Your task to perform on an android device: turn on javascript in the chrome app Image 0: 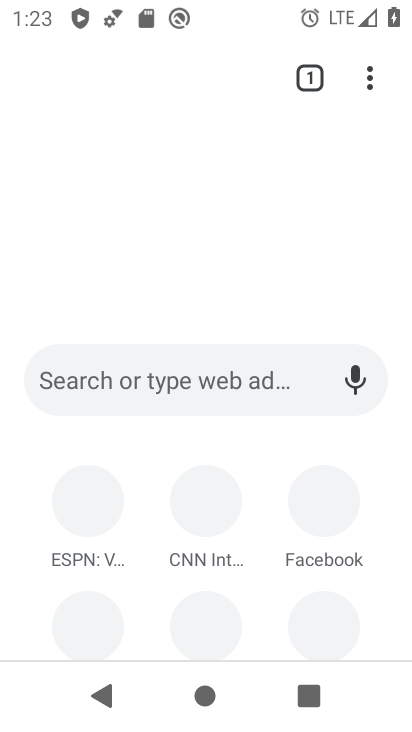
Step 0: press home button
Your task to perform on an android device: turn on javascript in the chrome app Image 1: 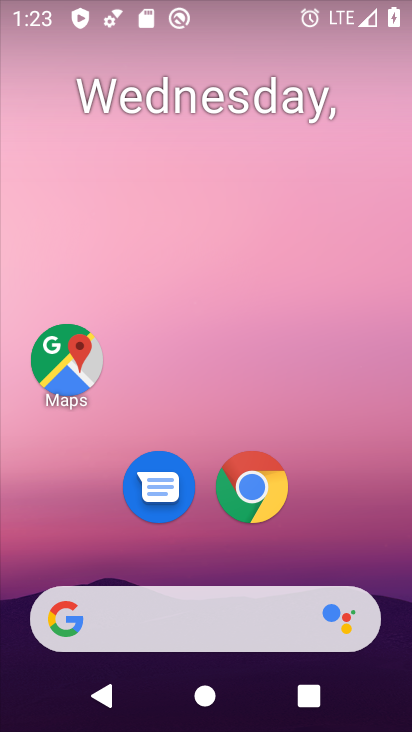
Step 1: drag from (393, 611) to (295, 209)
Your task to perform on an android device: turn on javascript in the chrome app Image 2: 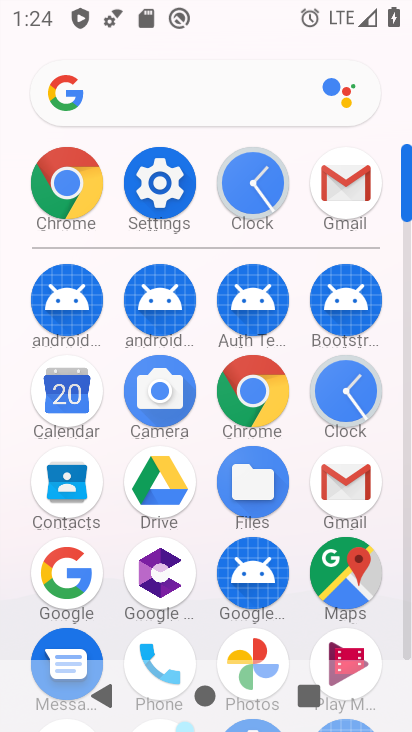
Step 2: click (57, 201)
Your task to perform on an android device: turn on javascript in the chrome app Image 3: 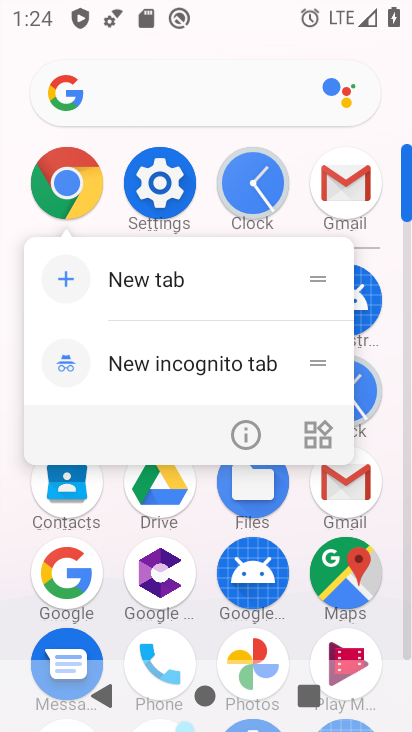
Step 3: click (78, 187)
Your task to perform on an android device: turn on javascript in the chrome app Image 4: 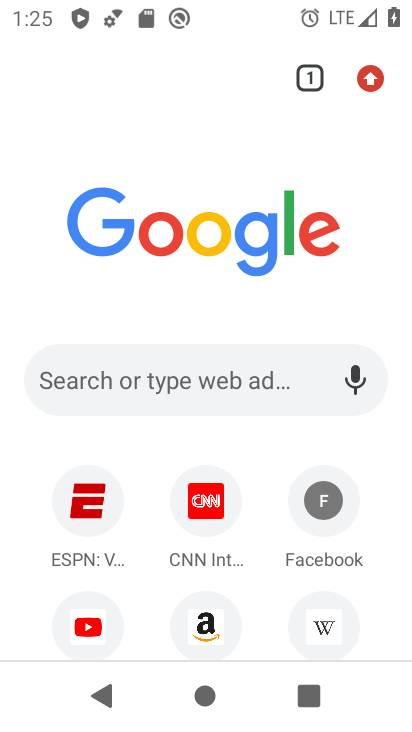
Step 4: click (369, 77)
Your task to perform on an android device: turn on javascript in the chrome app Image 5: 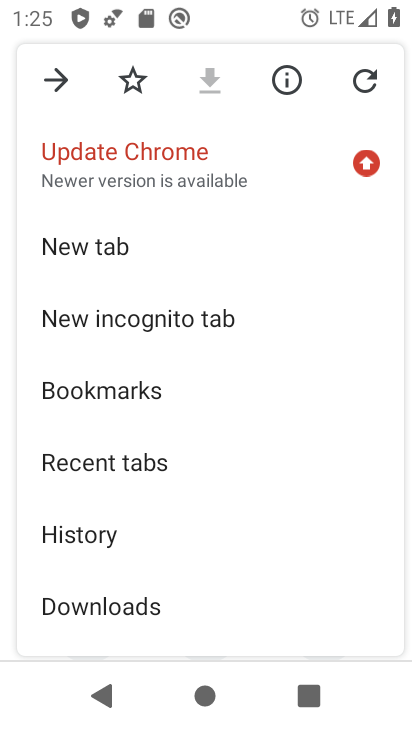
Step 5: drag from (168, 575) to (218, 205)
Your task to perform on an android device: turn on javascript in the chrome app Image 6: 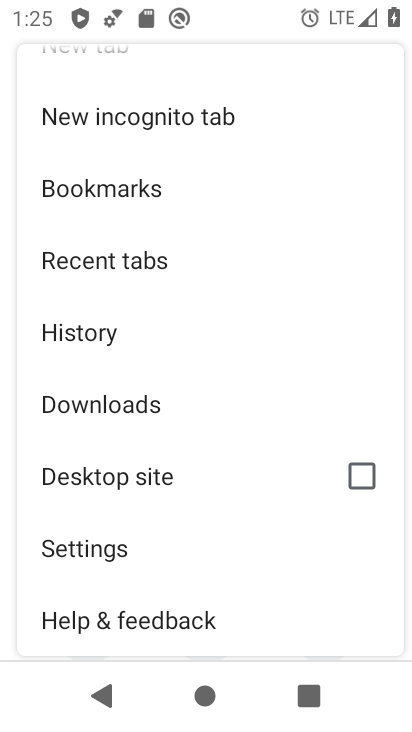
Step 6: click (104, 561)
Your task to perform on an android device: turn on javascript in the chrome app Image 7: 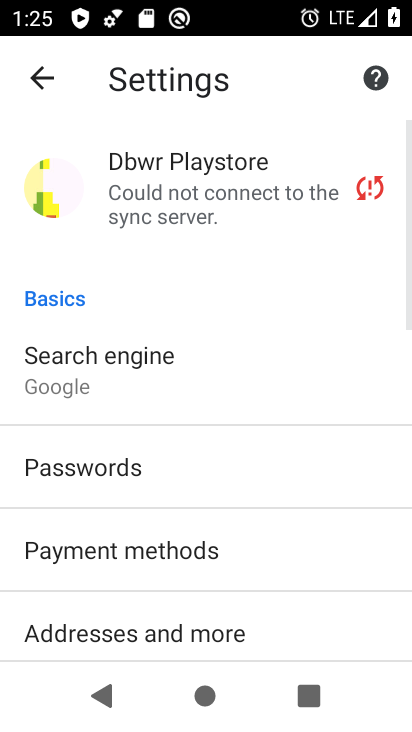
Step 7: drag from (152, 615) to (246, 170)
Your task to perform on an android device: turn on javascript in the chrome app Image 8: 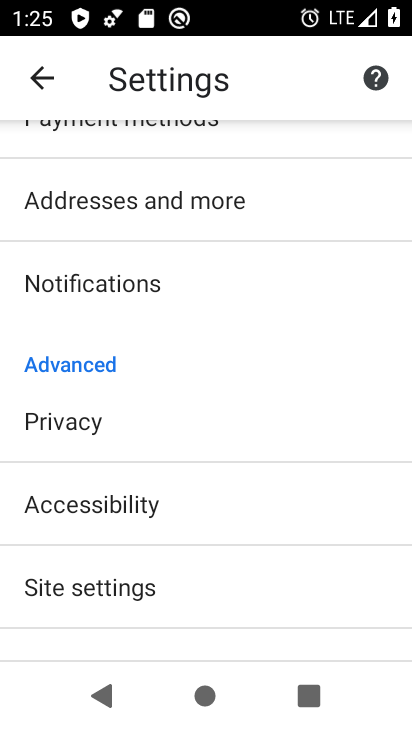
Step 8: drag from (166, 586) to (227, 295)
Your task to perform on an android device: turn on javascript in the chrome app Image 9: 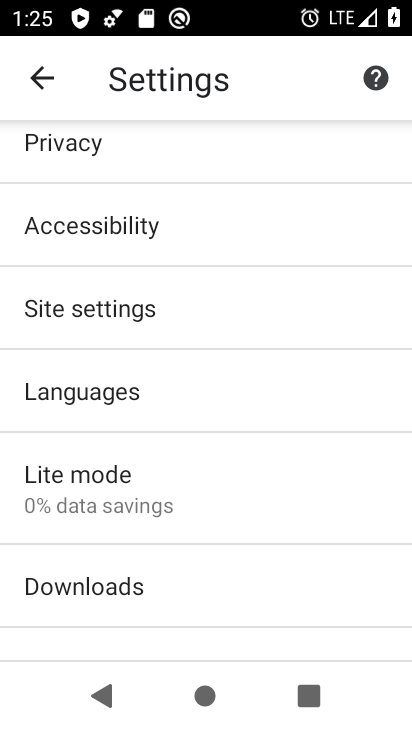
Step 9: click (138, 324)
Your task to perform on an android device: turn on javascript in the chrome app Image 10: 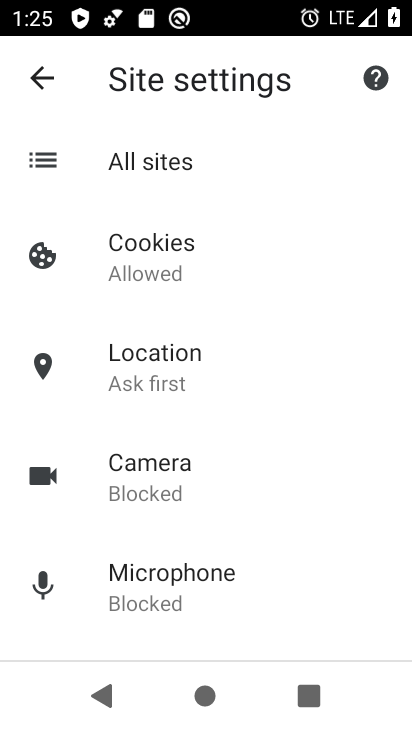
Step 10: drag from (198, 582) to (255, 173)
Your task to perform on an android device: turn on javascript in the chrome app Image 11: 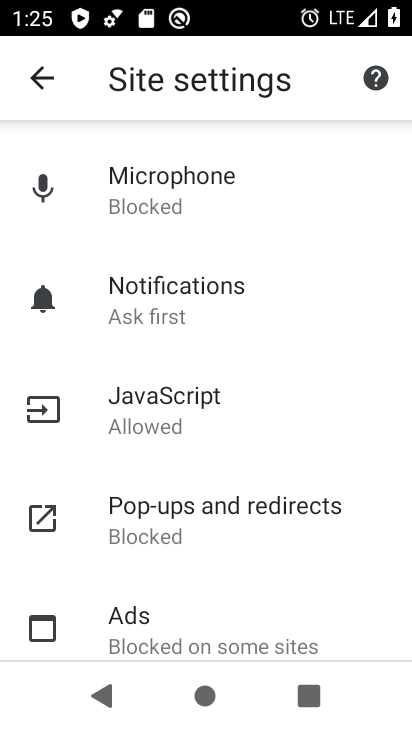
Step 11: click (157, 392)
Your task to perform on an android device: turn on javascript in the chrome app Image 12: 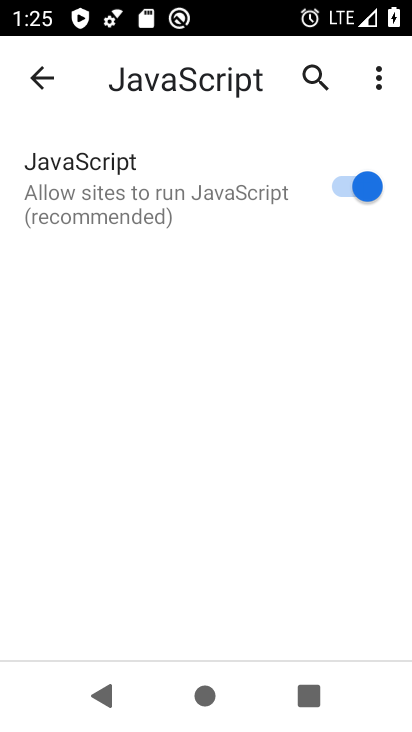
Step 12: task complete